Your task to perform on an android device: Open my contact list Image 0: 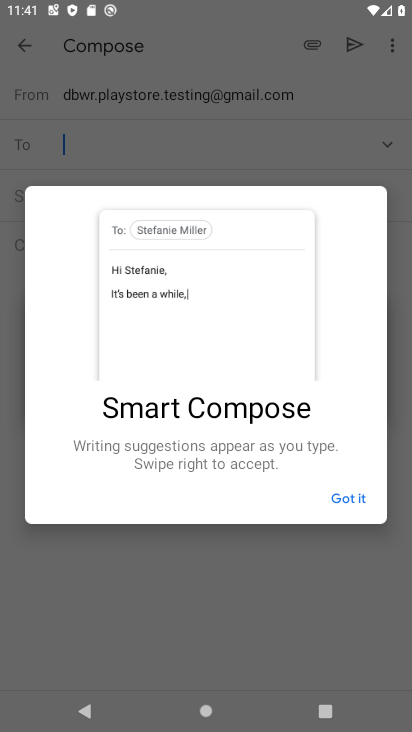
Step 0: press home button
Your task to perform on an android device: Open my contact list Image 1: 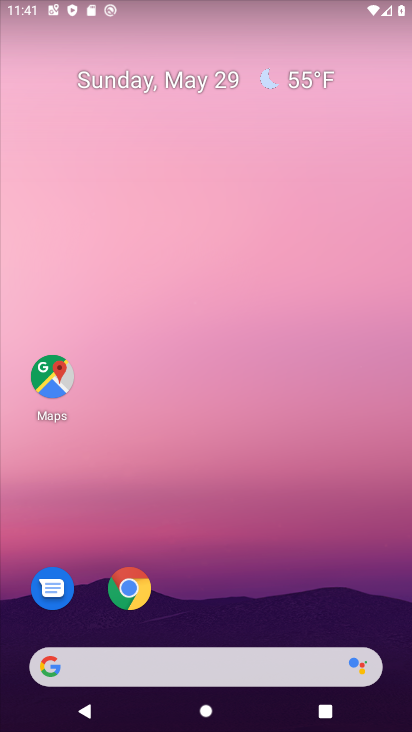
Step 1: drag from (301, 546) to (284, 4)
Your task to perform on an android device: Open my contact list Image 2: 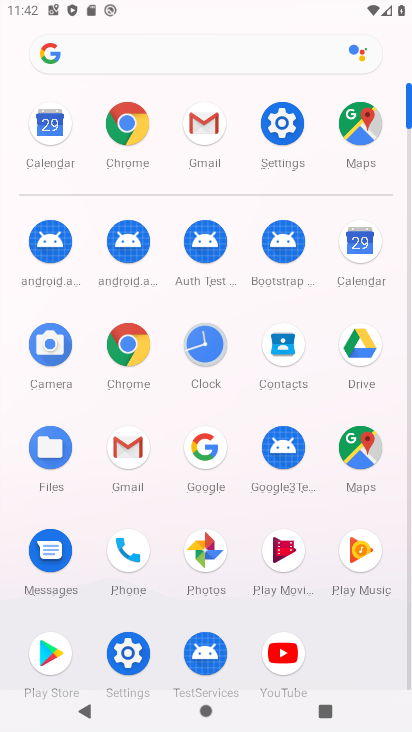
Step 2: click (135, 556)
Your task to perform on an android device: Open my contact list Image 3: 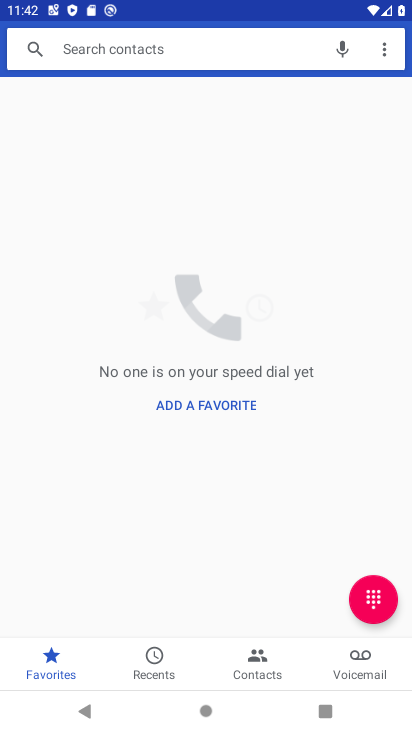
Step 3: click (250, 671)
Your task to perform on an android device: Open my contact list Image 4: 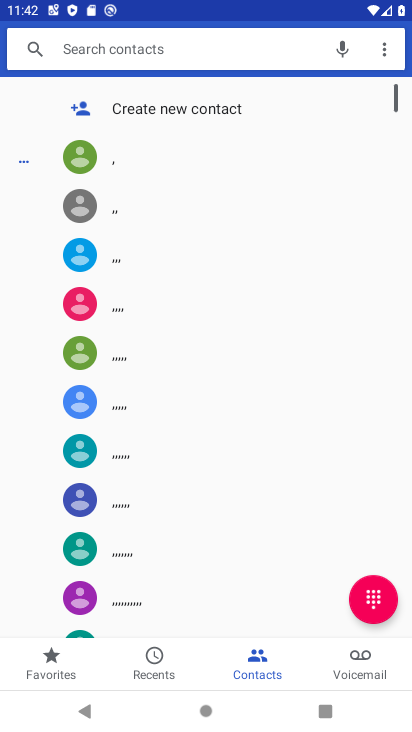
Step 4: task complete